Your task to perform on an android device: stop showing notifications on the lock screen Image 0: 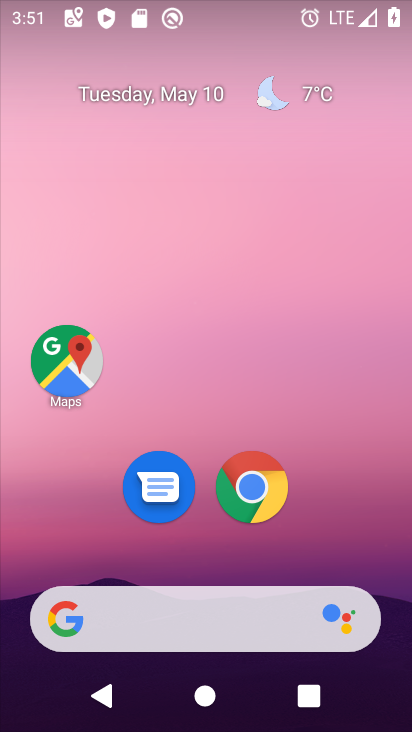
Step 0: drag from (367, 543) to (209, 44)
Your task to perform on an android device: stop showing notifications on the lock screen Image 1: 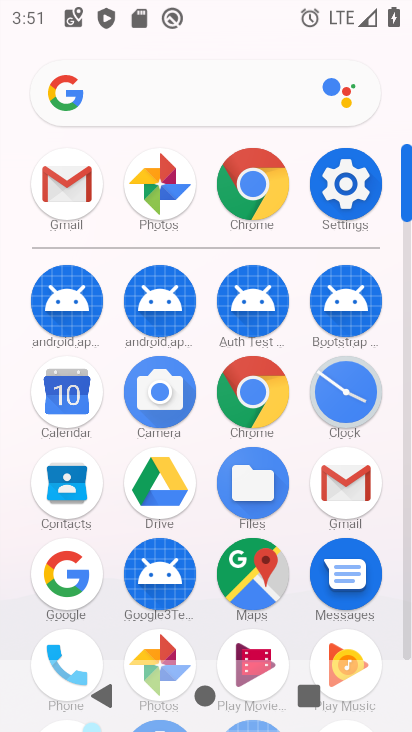
Step 1: click (357, 168)
Your task to perform on an android device: stop showing notifications on the lock screen Image 2: 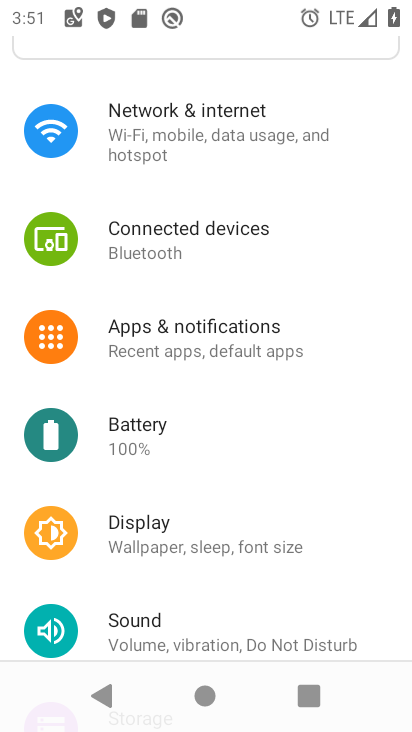
Step 2: click (201, 342)
Your task to perform on an android device: stop showing notifications on the lock screen Image 3: 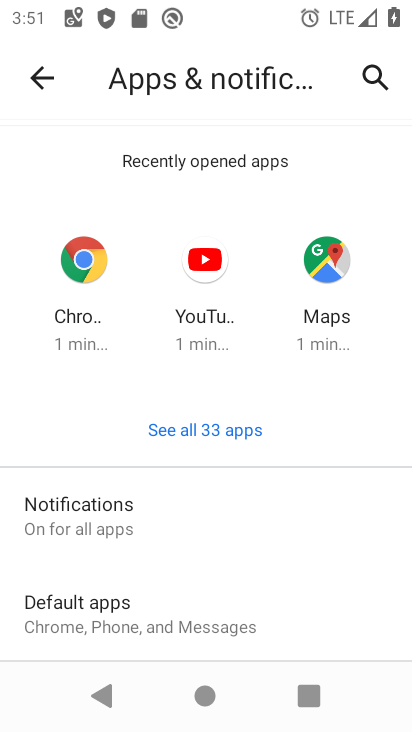
Step 3: drag from (319, 591) to (317, 233)
Your task to perform on an android device: stop showing notifications on the lock screen Image 4: 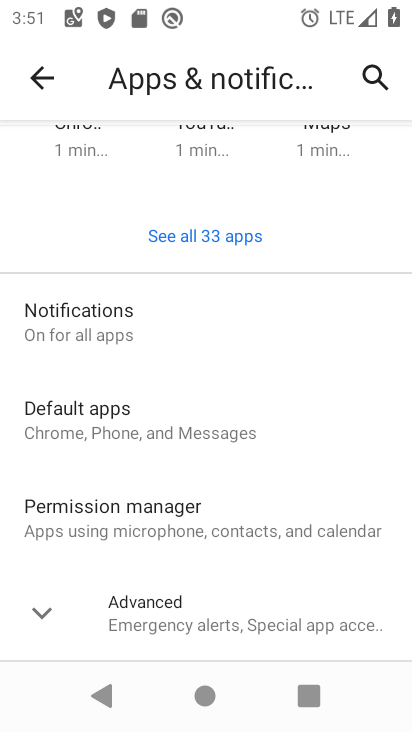
Step 4: click (92, 316)
Your task to perform on an android device: stop showing notifications on the lock screen Image 5: 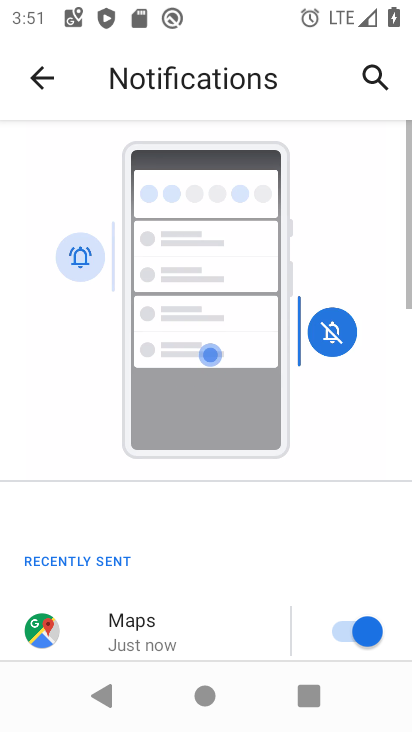
Step 5: drag from (330, 631) to (278, 169)
Your task to perform on an android device: stop showing notifications on the lock screen Image 6: 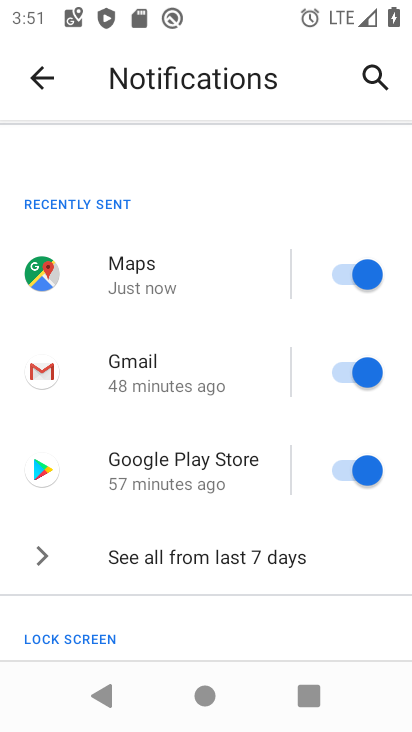
Step 6: drag from (234, 601) to (172, 159)
Your task to perform on an android device: stop showing notifications on the lock screen Image 7: 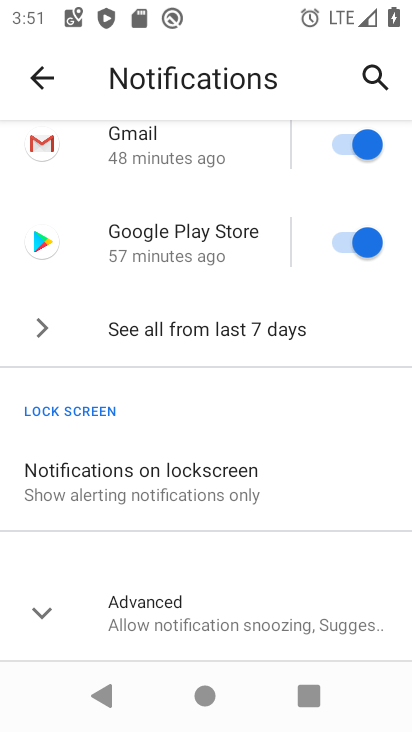
Step 7: click (202, 473)
Your task to perform on an android device: stop showing notifications on the lock screen Image 8: 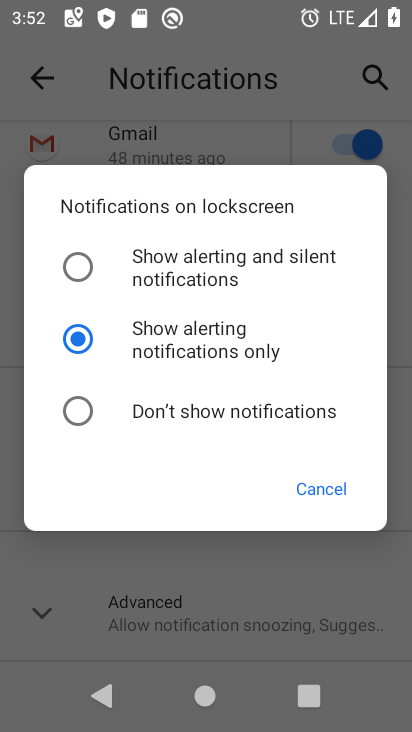
Step 8: click (219, 412)
Your task to perform on an android device: stop showing notifications on the lock screen Image 9: 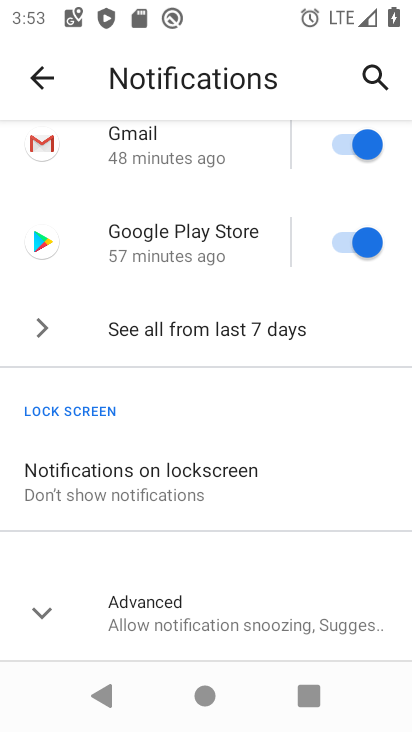
Step 9: task complete